Your task to perform on an android device: search for starred emails in the gmail app Image 0: 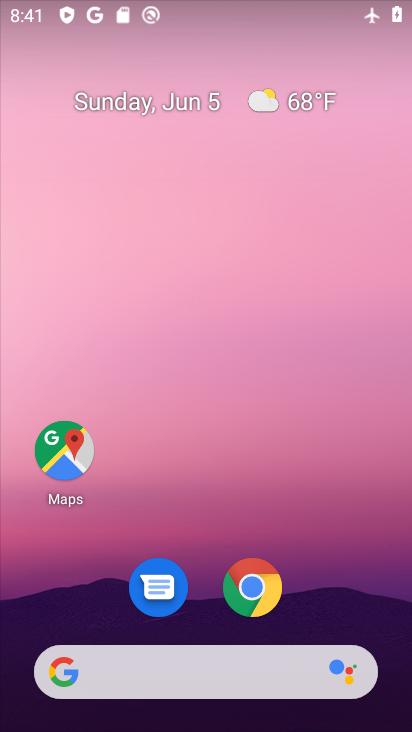
Step 0: drag from (353, 608) to (232, 81)
Your task to perform on an android device: search for starred emails in the gmail app Image 1: 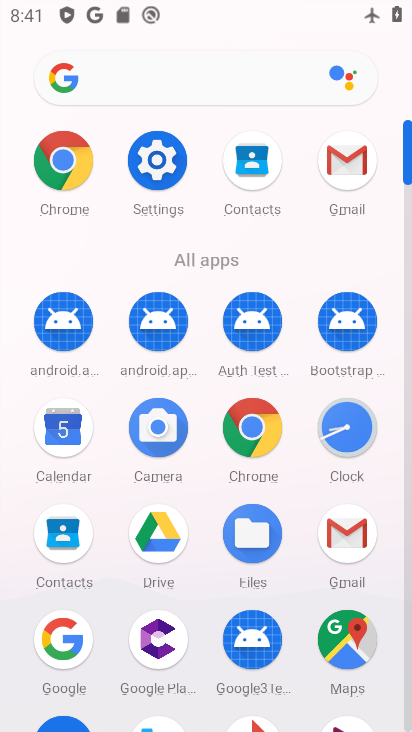
Step 1: click (332, 522)
Your task to perform on an android device: search for starred emails in the gmail app Image 2: 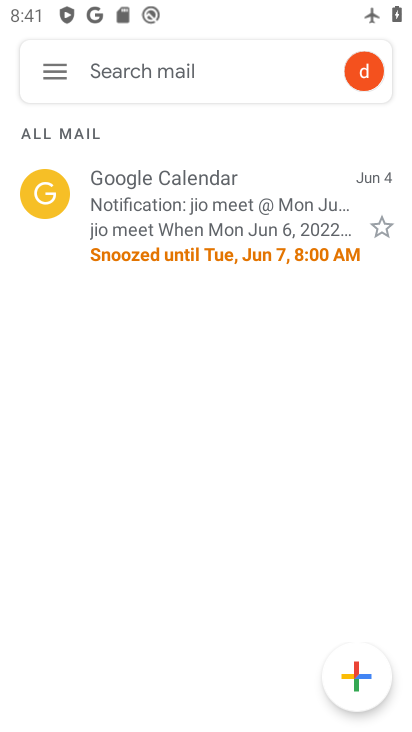
Step 2: click (48, 64)
Your task to perform on an android device: search for starred emails in the gmail app Image 3: 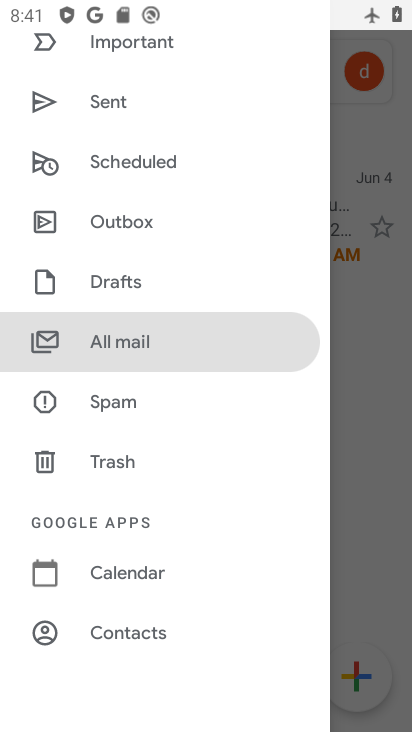
Step 3: drag from (156, 485) to (152, 113)
Your task to perform on an android device: search for starred emails in the gmail app Image 4: 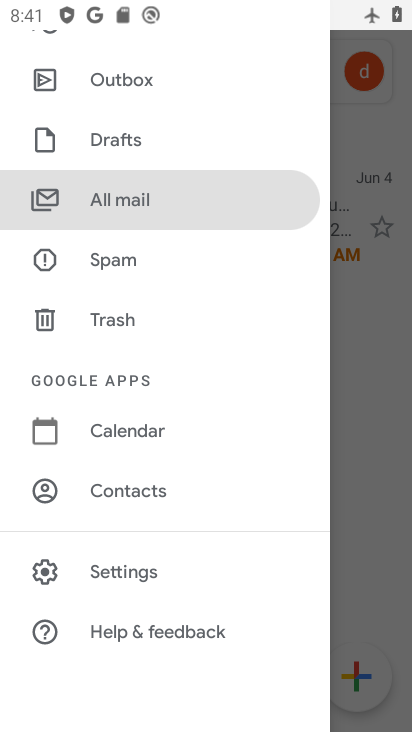
Step 4: click (146, 568)
Your task to perform on an android device: search for starred emails in the gmail app Image 5: 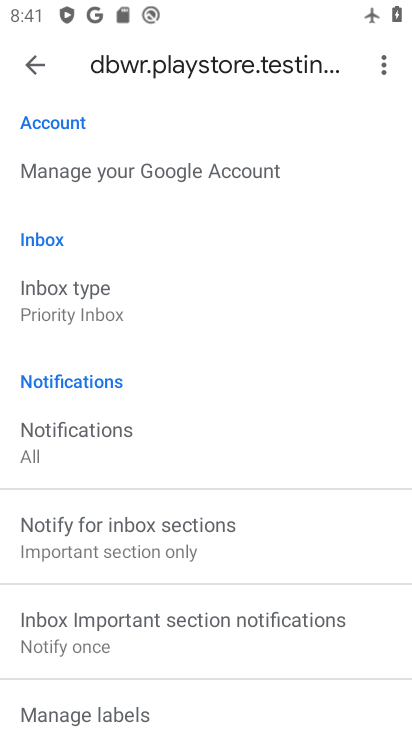
Step 5: click (30, 64)
Your task to perform on an android device: search for starred emails in the gmail app Image 6: 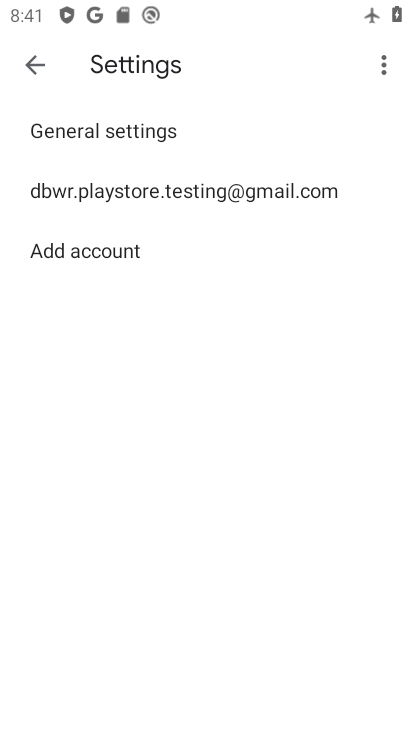
Step 6: click (30, 64)
Your task to perform on an android device: search for starred emails in the gmail app Image 7: 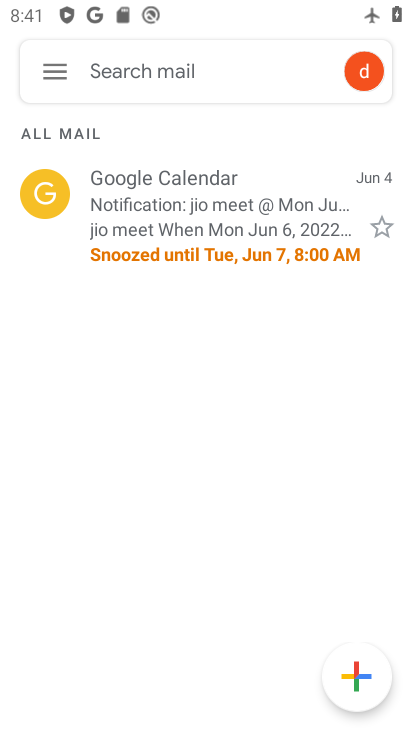
Step 7: click (30, 64)
Your task to perform on an android device: search for starred emails in the gmail app Image 8: 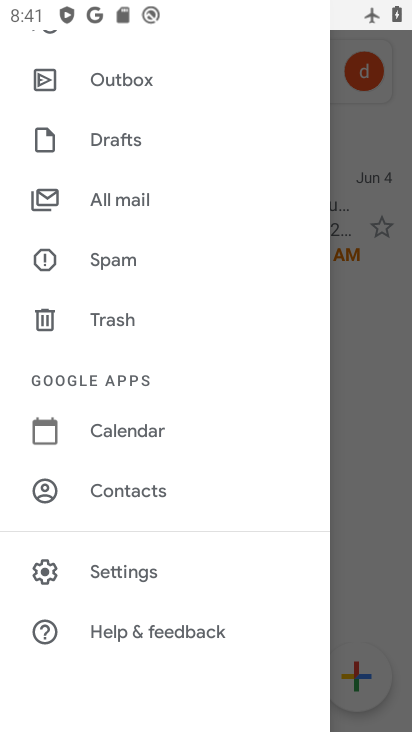
Step 8: drag from (119, 156) to (117, 666)
Your task to perform on an android device: search for starred emails in the gmail app Image 9: 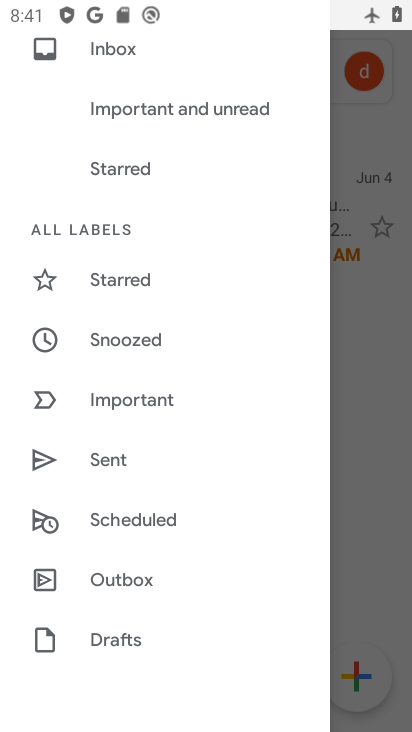
Step 9: click (139, 284)
Your task to perform on an android device: search for starred emails in the gmail app Image 10: 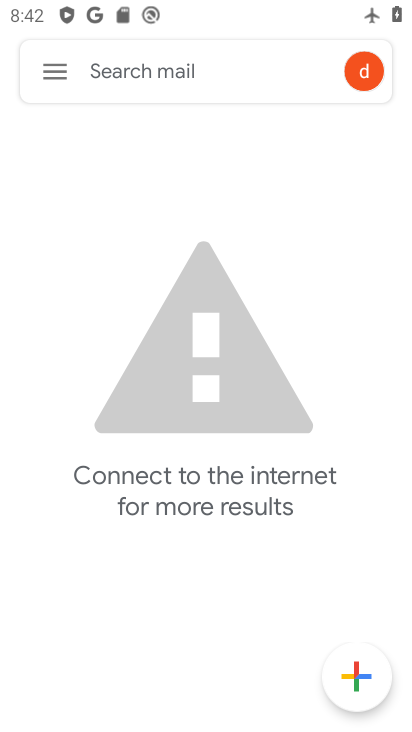
Step 10: task complete